Your task to perform on an android device: Show me the alarms in the clock app Image 0: 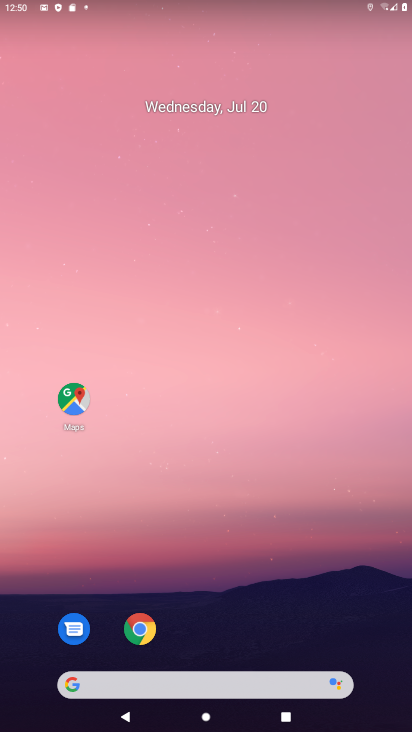
Step 0: drag from (198, 683) to (313, 70)
Your task to perform on an android device: Show me the alarms in the clock app Image 1: 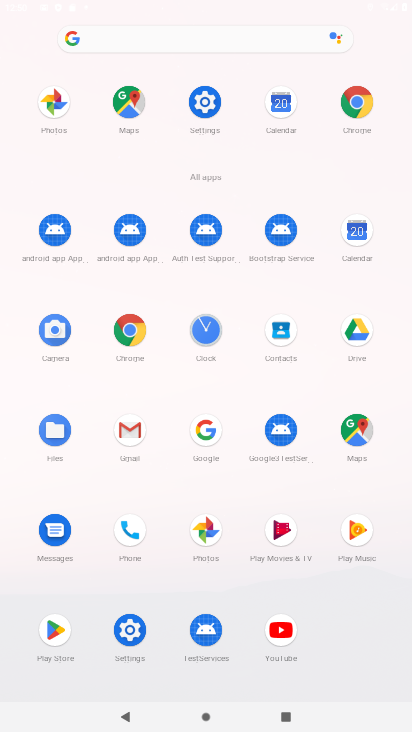
Step 1: click (204, 329)
Your task to perform on an android device: Show me the alarms in the clock app Image 2: 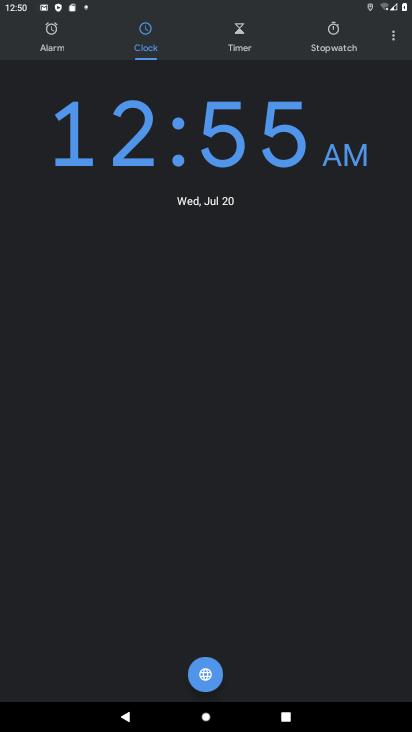
Step 2: click (54, 29)
Your task to perform on an android device: Show me the alarms in the clock app Image 3: 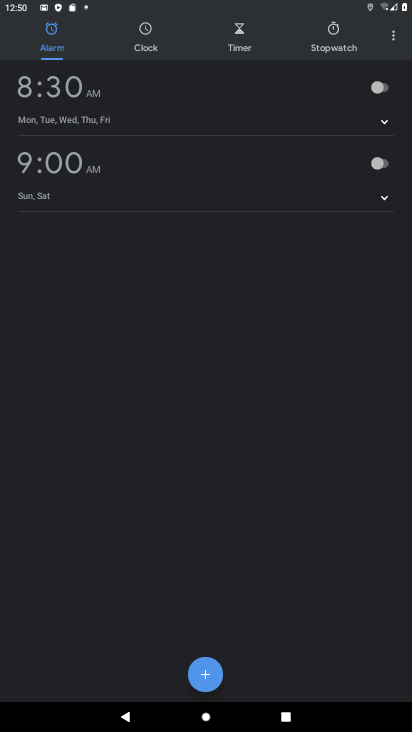
Step 3: click (204, 672)
Your task to perform on an android device: Show me the alarms in the clock app Image 4: 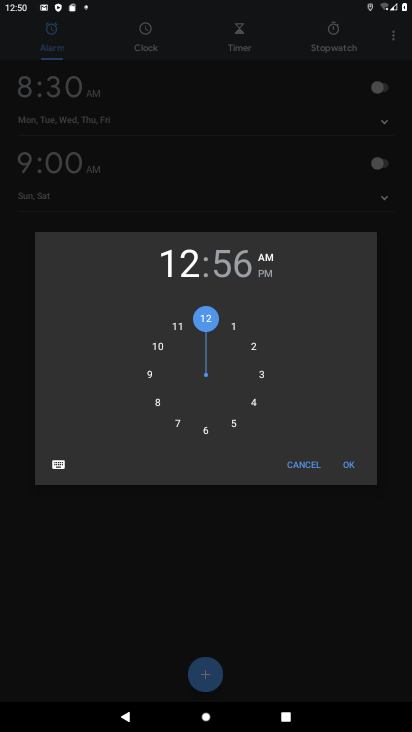
Step 4: click (199, 430)
Your task to perform on an android device: Show me the alarms in the clock app Image 5: 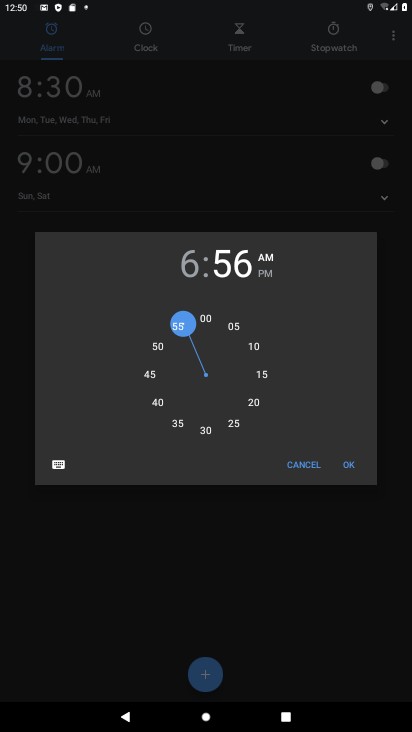
Step 5: click (153, 346)
Your task to perform on an android device: Show me the alarms in the clock app Image 6: 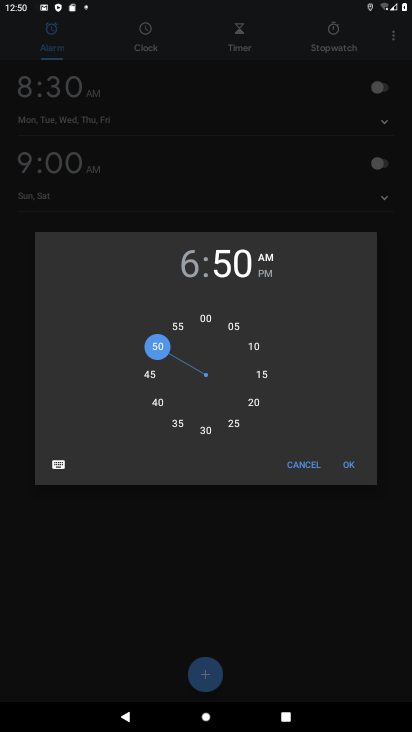
Step 6: click (266, 271)
Your task to perform on an android device: Show me the alarms in the clock app Image 7: 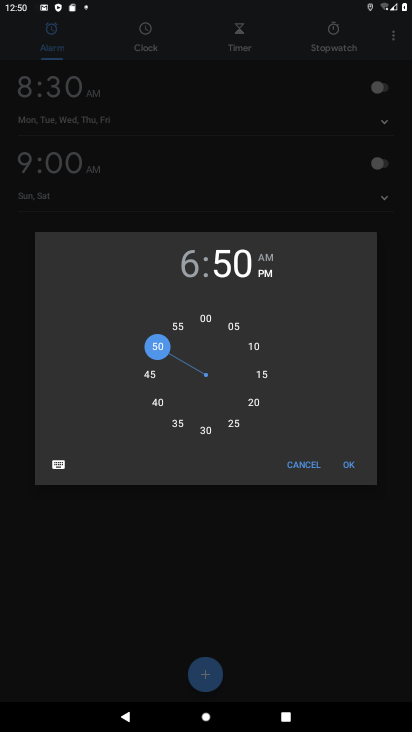
Step 7: click (349, 467)
Your task to perform on an android device: Show me the alarms in the clock app Image 8: 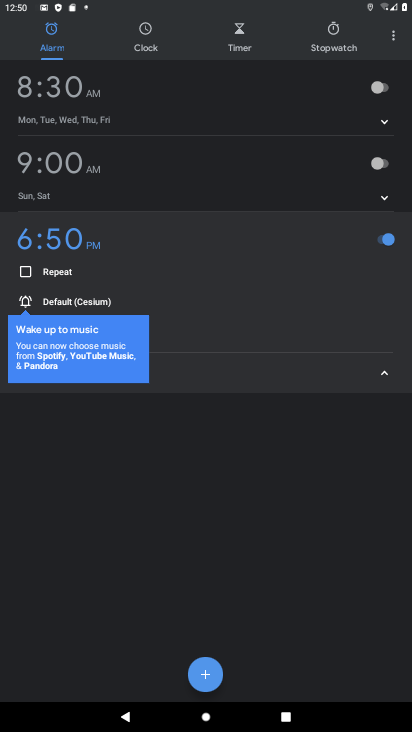
Step 8: click (383, 377)
Your task to perform on an android device: Show me the alarms in the clock app Image 9: 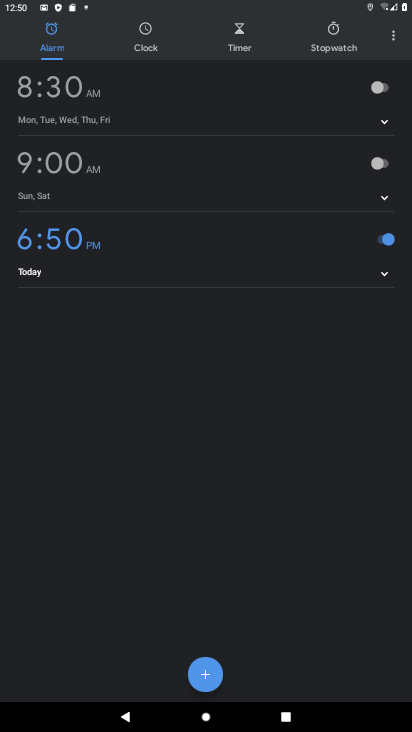
Step 9: task complete